Your task to perform on an android device: turn off location Image 0: 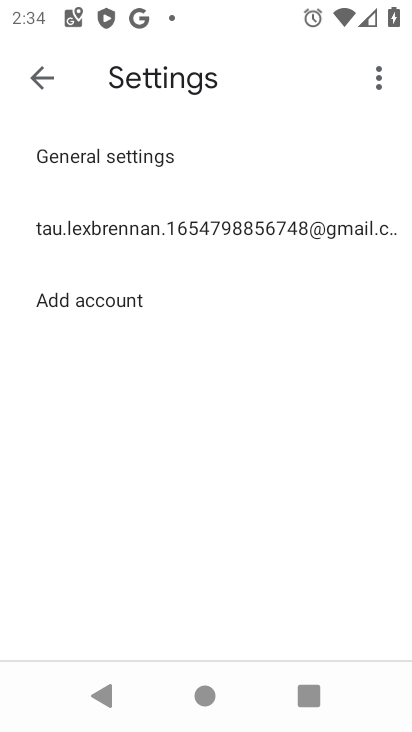
Step 0: press home button
Your task to perform on an android device: turn off location Image 1: 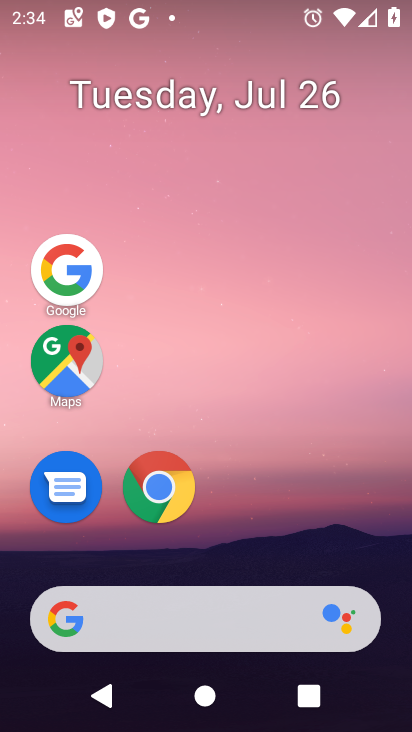
Step 1: drag from (286, 640) to (328, 124)
Your task to perform on an android device: turn off location Image 2: 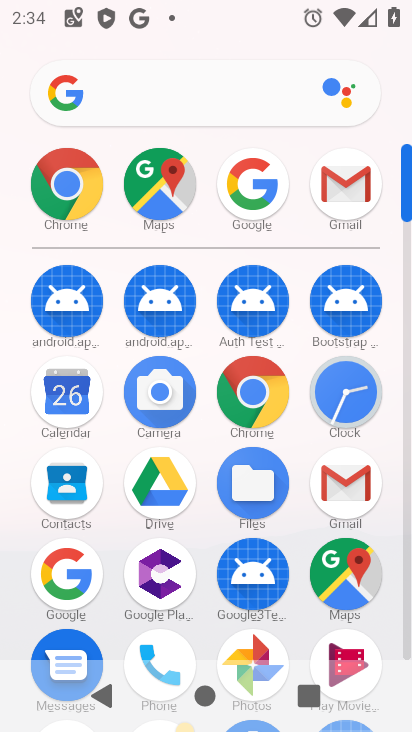
Step 2: drag from (235, 219) to (249, 161)
Your task to perform on an android device: turn off location Image 3: 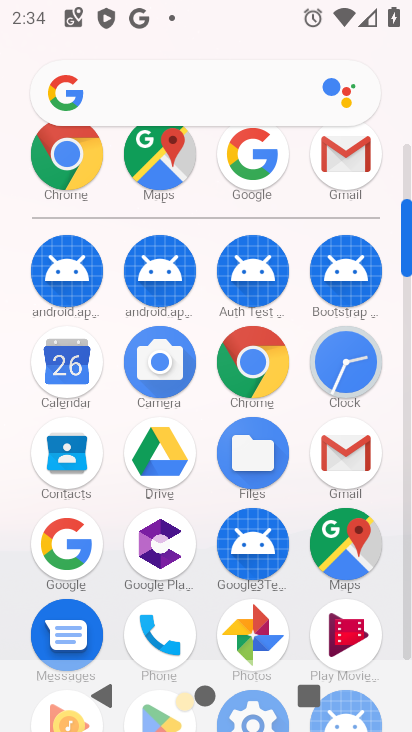
Step 3: drag from (247, 433) to (300, 9)
Your task to perform on an android device: turn off location Image 4: 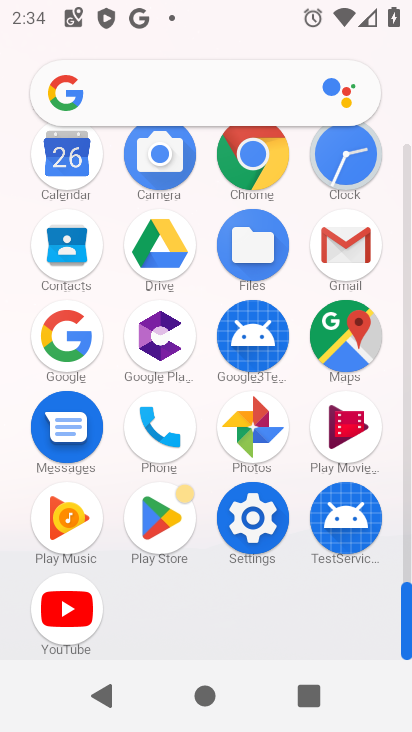
Step 4: click (262, 545)
Your task to perform on an android device: turn off location Image 5: 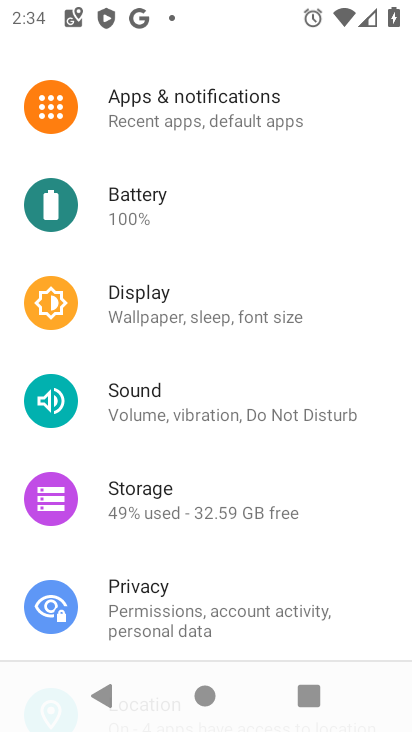
Step 5: drag from (151, 448) to (188, 115)
Your task to perform on an android device: turn off location Image 6: 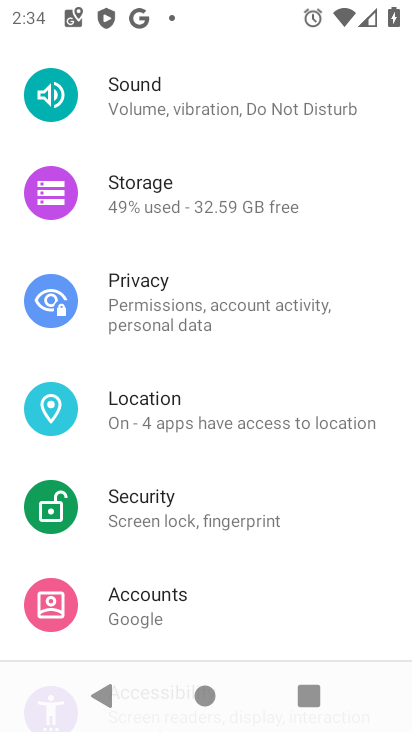
Step 6: click (196, 409)
Your task to perform on an android device: turn off location Image 7: 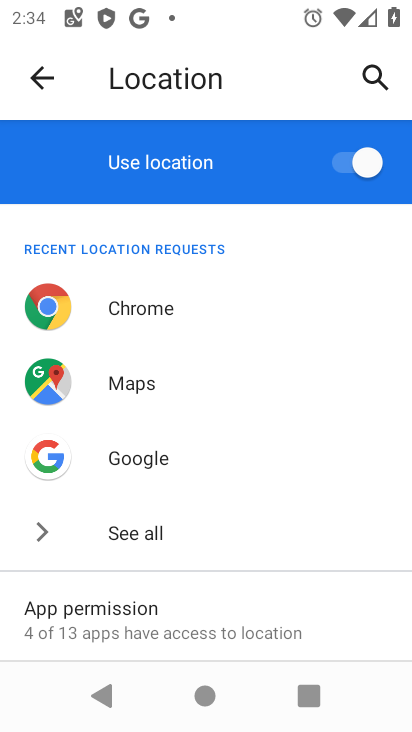
Step 7: click (337, 160)
Your task to perform on an android device: turn off location Image 8: 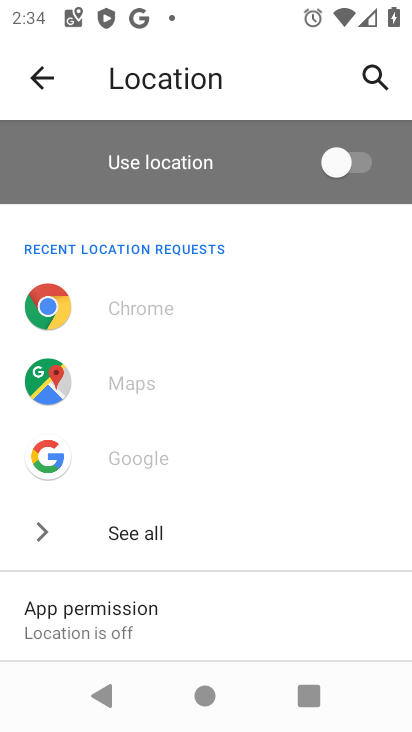
Step 8: task complete